Your task to perform on an android device: What's the weather? Image 0: 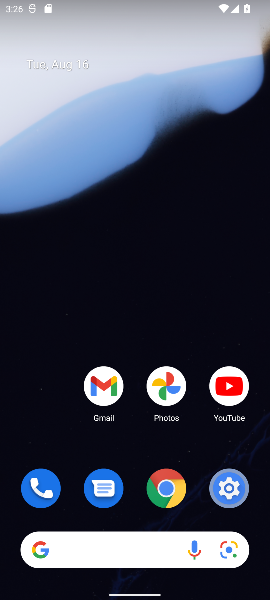
Step 0: click (149, 551)
Your task to perform on an android device: What's the weather? Image 1: 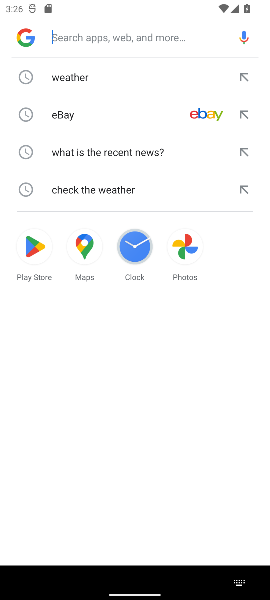
Step 1: type "What's the weather?"
Your task to perform on an android device: What's the weather? Image 2: 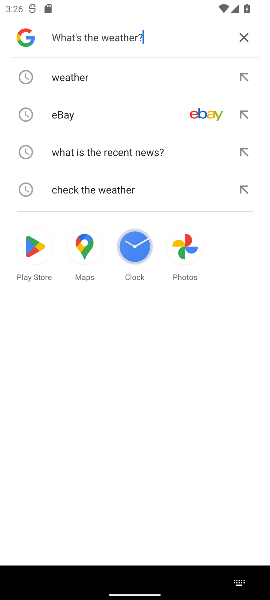
Step 2: press enter
Your task to perform on an android device: What's the weather? Image 3: 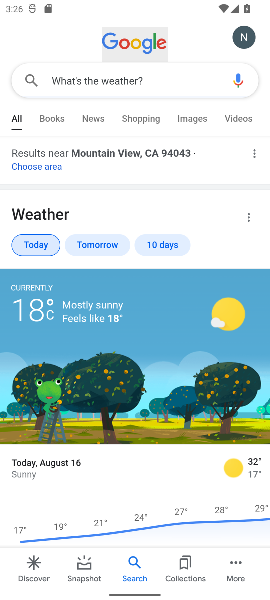
Step 3: task complete